Your task to perform on an android device: move an email to a new category in the gmail app Image 0: 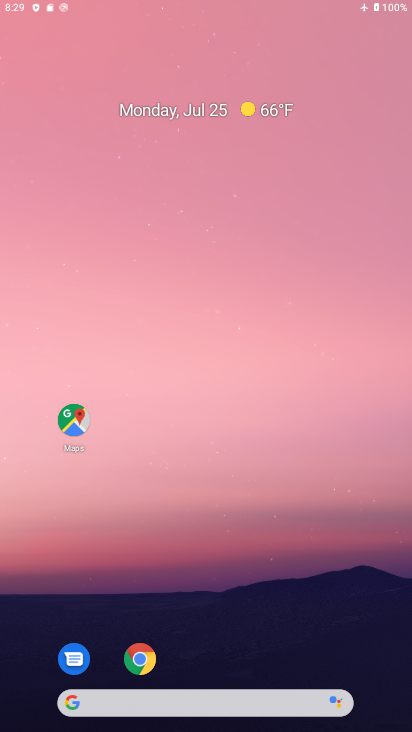
Step 0: drag from (255, 594) to (252, 87)
Your task to perform on an android device: move an email to a new category in the gmail app Image 1: 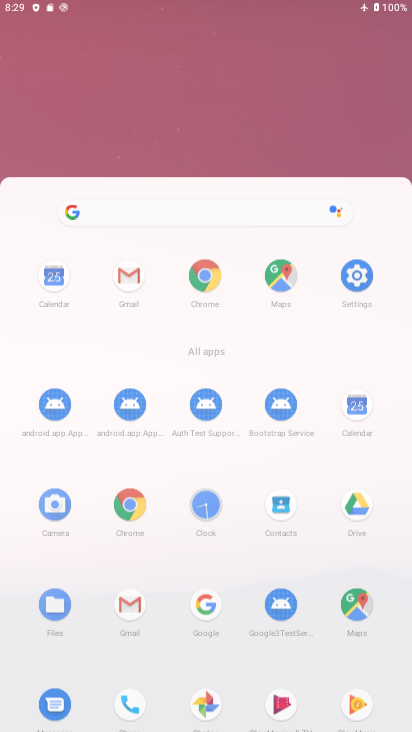
Step 1: drag from (296, 516) to (196, 110)
Your task to perform on an android device: move an email to a new category in the gmail app Image 2: 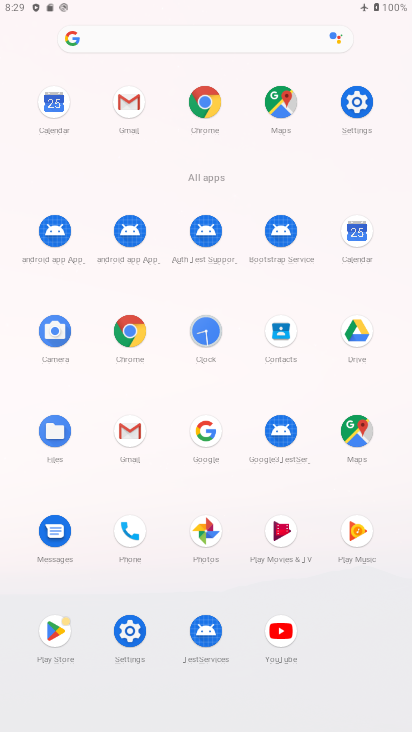
Step 2: click (124, 443)
Your task to perform on an android device: move an email to a new category in the gmail app Image 3: 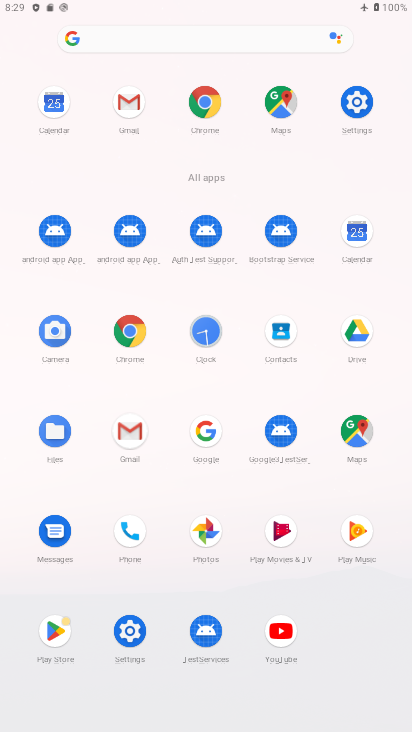
Step 3: click (124, 442)
Your task to perform on an android device: move an email to a new category in the gmail app Image 4: 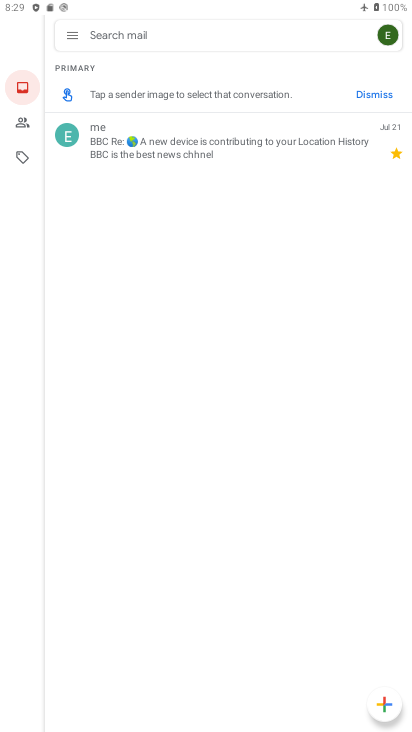
Step 4: click (127, 441)
Your task to perform on an android device: move an email to a new category in the gmail app Image 5: 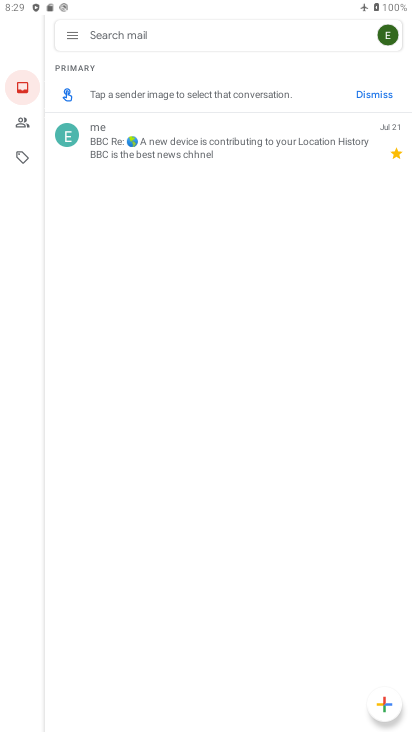
Step 5: click (398, 151)
Your task to perform on an android device: move an email to a new category in the gmail app Image 6: 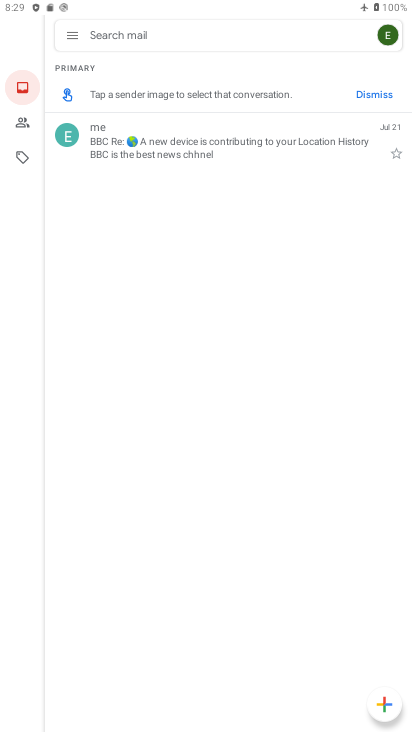
Step 6: click (399, 150)
Your task to perform on an android device: move an email to a new category in the gmail app Image 7: 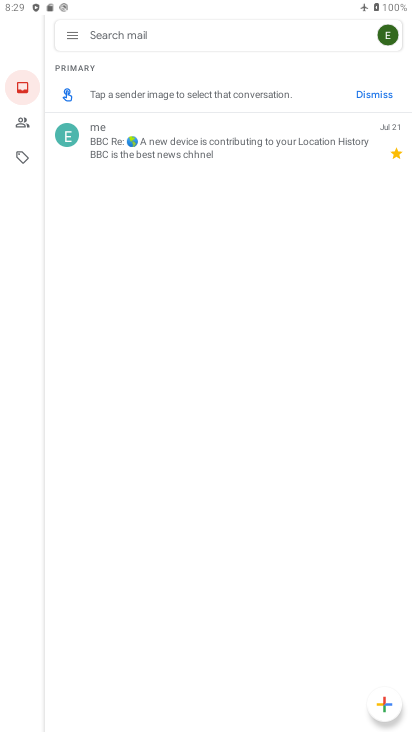
Step 7: click (397, 155)
Your task to perform on an android device: move an email to a new category in the gmail app Image 8: 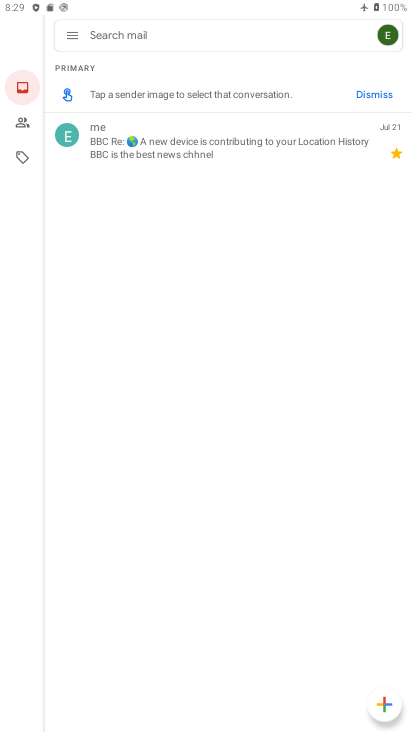
Step 8: click (396, 154)
Your task to perform on an android device: move an email to a new category in the gmail app Image 9: 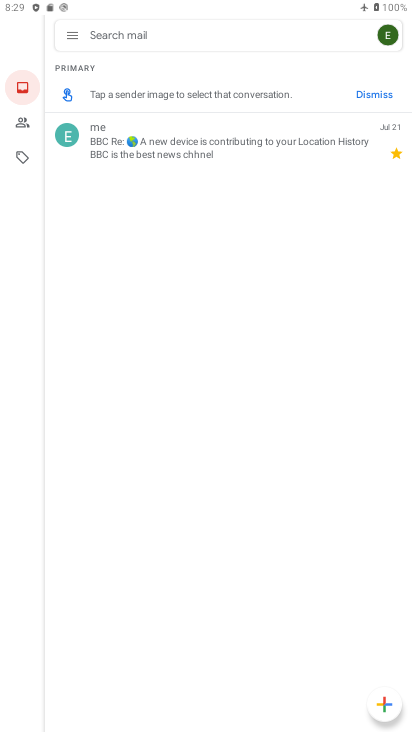
Step 9: task complete